Your task to perform on an android device: Search for "razer thresher" on ebay.com, select the first entry, and add it to the cart. Image 0: 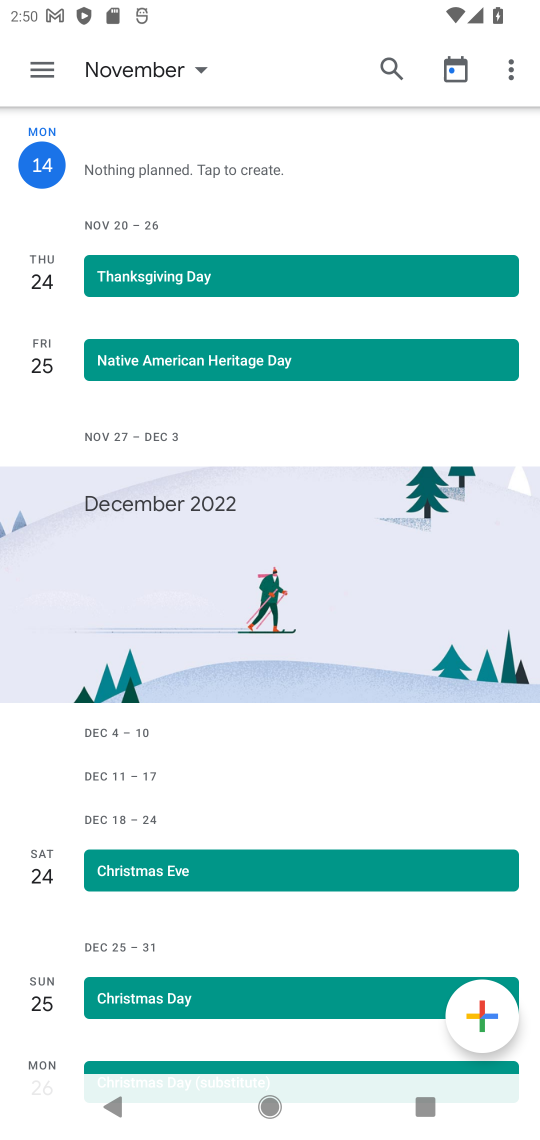
Step 0: press home button
Your task to perform on an android device: Search for "razer thresher" on ebay.com, select the first entry, and add it to the cart. Image 1: 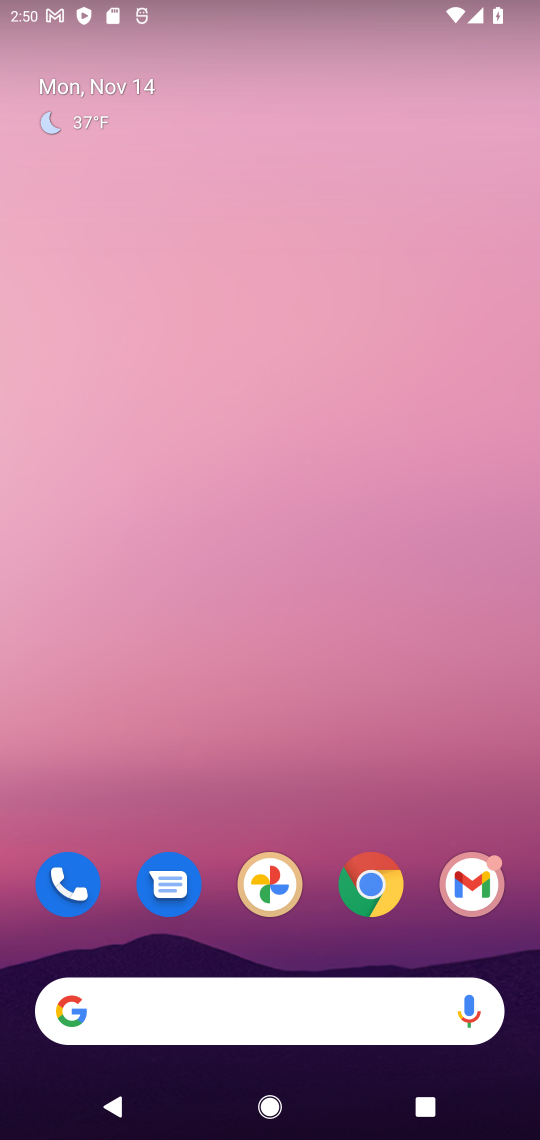
Step 1: click (381, 886)
Your task to perform on an android device: Search for "razer thresher" on ebay.com, select the first entry, and add it to the cart. Image 2: 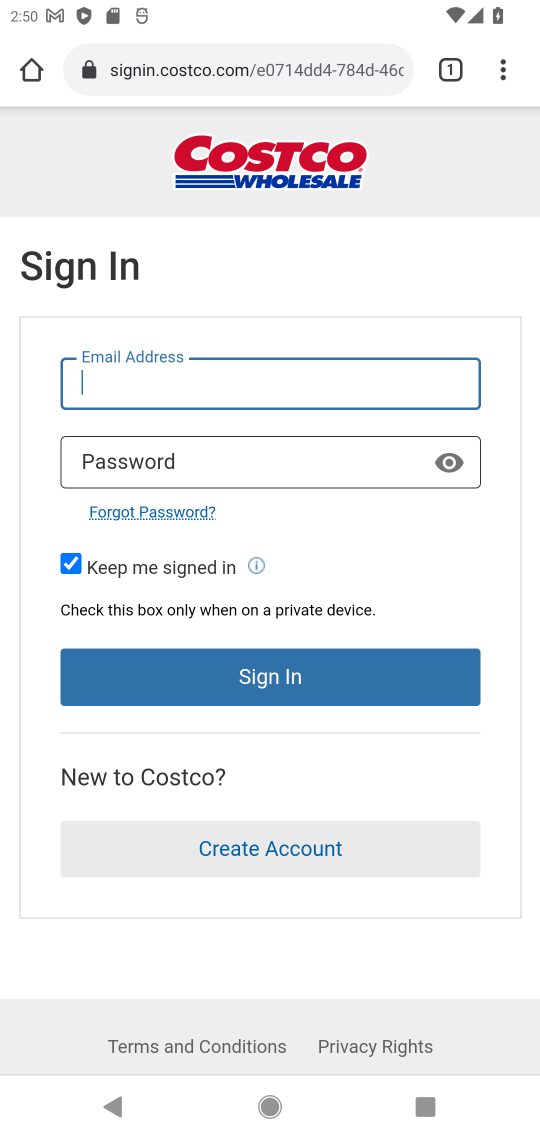
Step 2: click (263, 52)
Your task to perform on an android device: Search for "razer thresher" on ebay.com, select the first entry, and add it to the cart. Image 3: 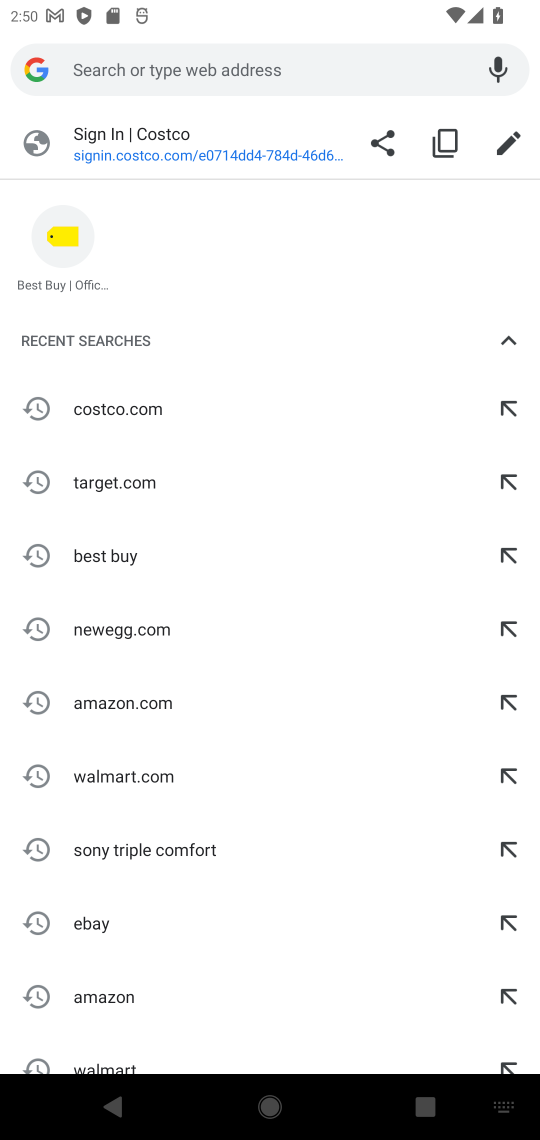
Step 3: click (92, 926)
Your task to perform on an android device: Search for "razer thresher" on ebay.com, select the first entry, and add it to the cart. Image 4: 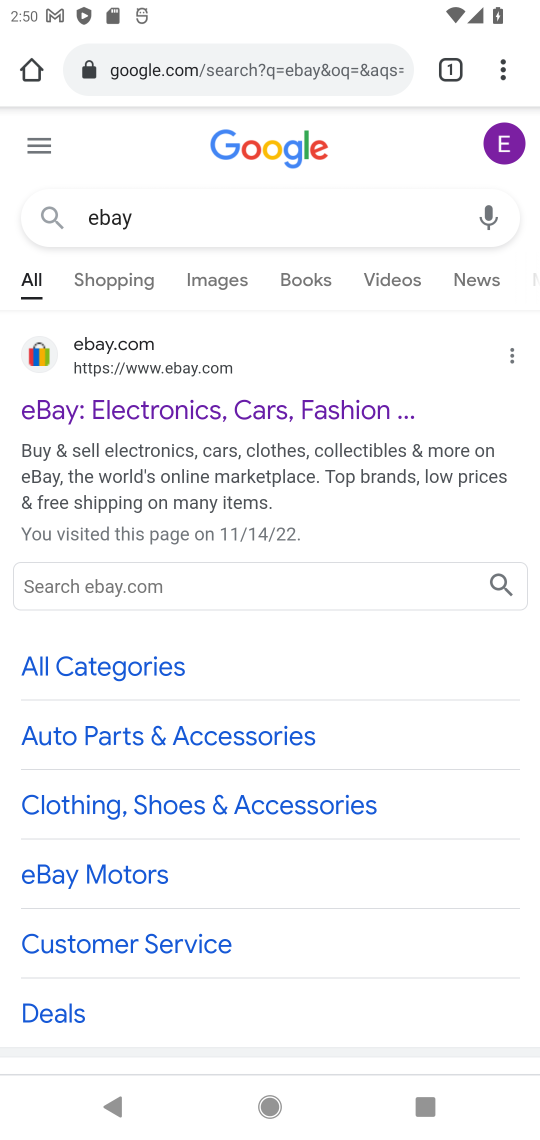
Step 4: click (158, 361)
Your task to perform on an android device: Search for "razer thresher" on ebay.com, select the first entry, and add it to the cart. Image 5: 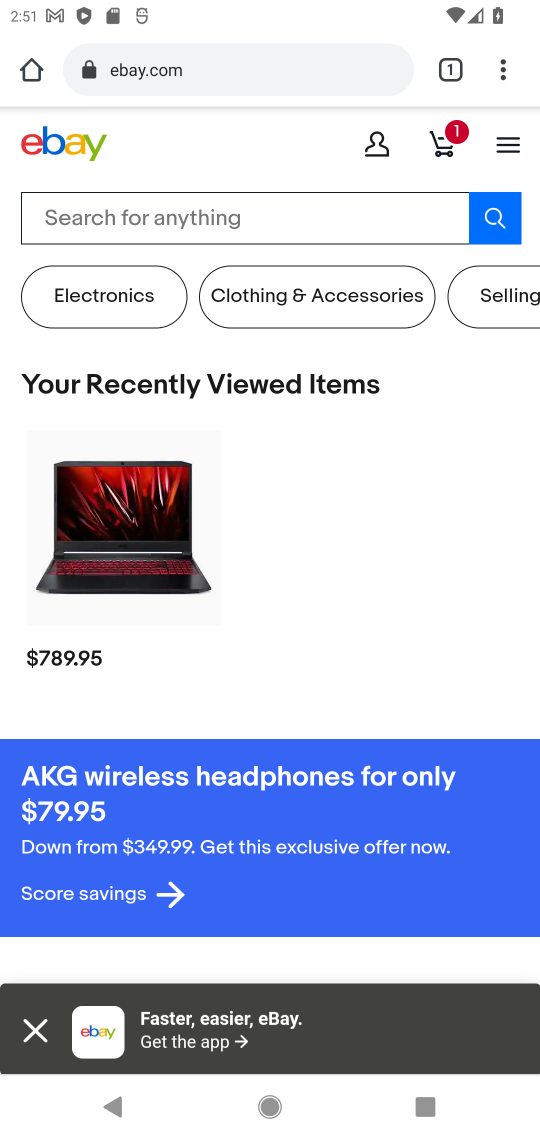
Step 5: click (171, 213)
Your task to perform on an android device: Search for "razer thresher" on ebay.com, select the first entry, and add it to the cart. Image 6: 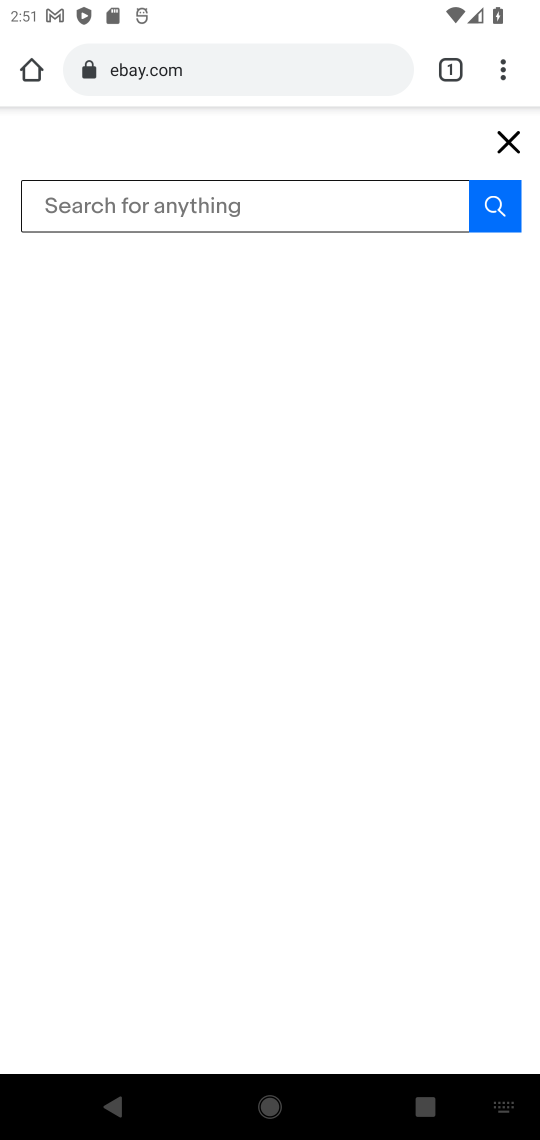
Step 6: type "razer thresher"
Your task to perform on an android device: Search for "razer thresher" on ebay.com, select the first entry, and add it to the cart. Image 7: 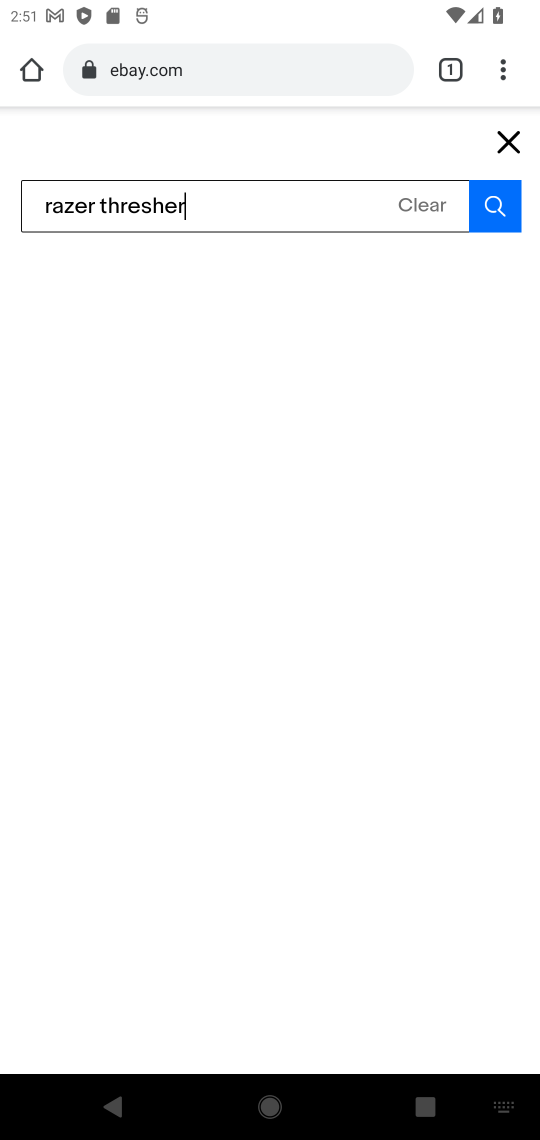
Step 7: press enter
Your task to perform on an android device: Search for "razer thresher" on ebay.com, select the first entry, and add it to the cart. Image 8: 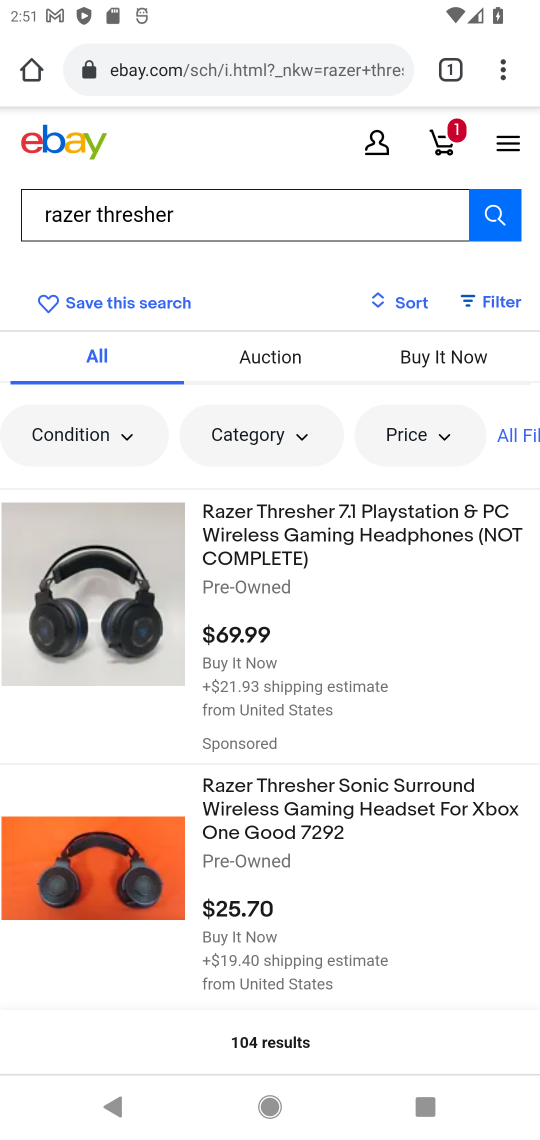
Step 8: click (104, 586)
Your task to perform on an android device: Search for "razer thresher" on ebay.com, select the first entry, and add it to the cart. Image 9: 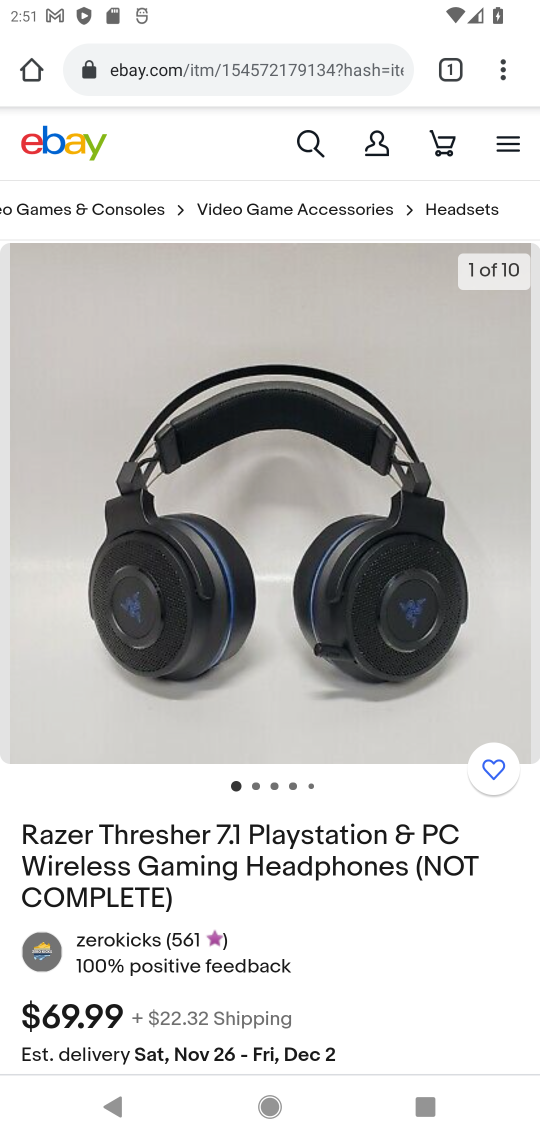
Step 9: drag from (428, 907) to (454, 466)
Your task to perform on an android device: Search for "razer thresher" on ebay.com, select the first entry, and add it to the cart. Image 10: 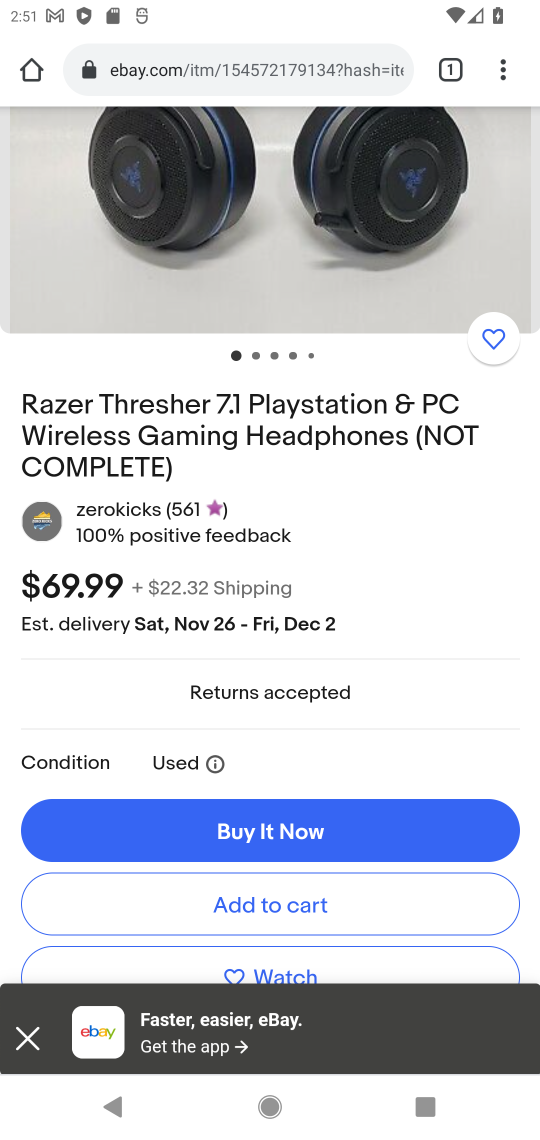
Step 10: click (332, 904)
Your task to perform on an android device: Search for "razer thresher" on ebay.com, select the first entry, and add it to the cart. Image 11: 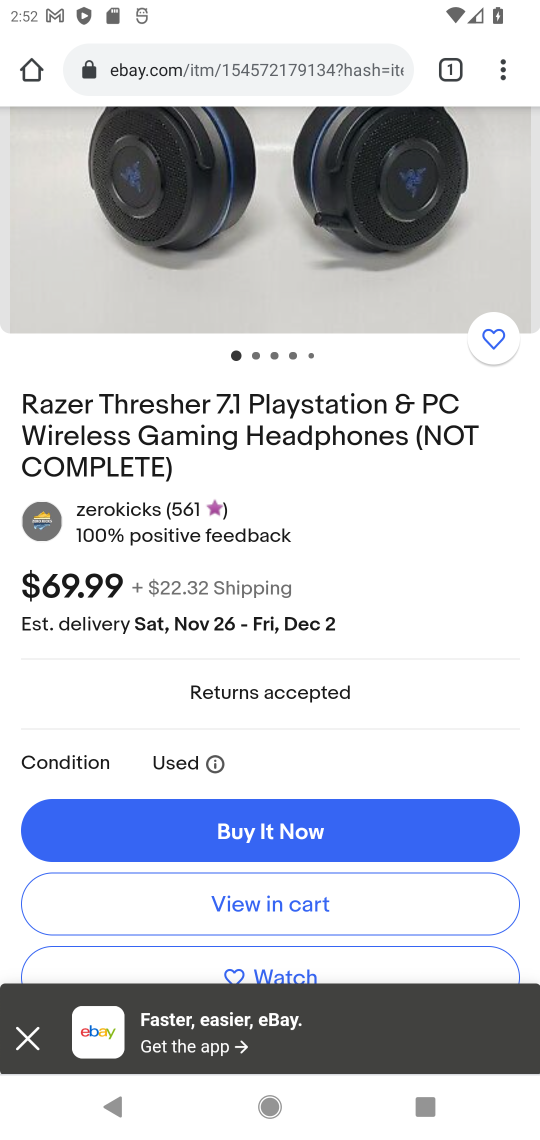
Step 11: task complete